Your task to perform on an android device: open a bookmark in the chrome app Image 0: 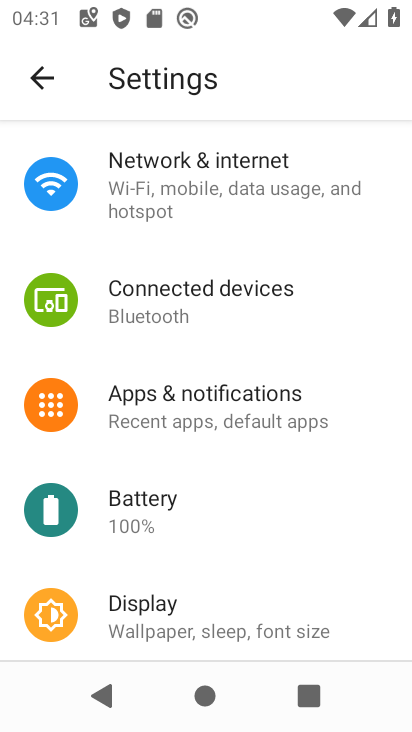
Step 0: press home button
Your task to perform on an android device: open a bookmark in the chrome app Image 1: 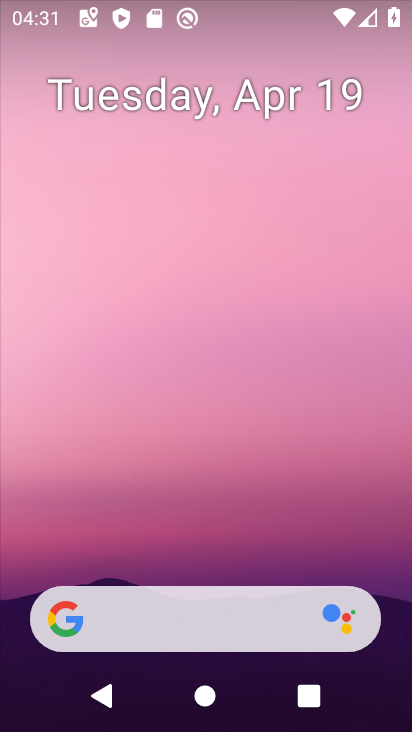
Step 1: drag from (210, 483) to (222, 156)
Your task to perform on an android device: open a bookmark in the chrome app Image 2: 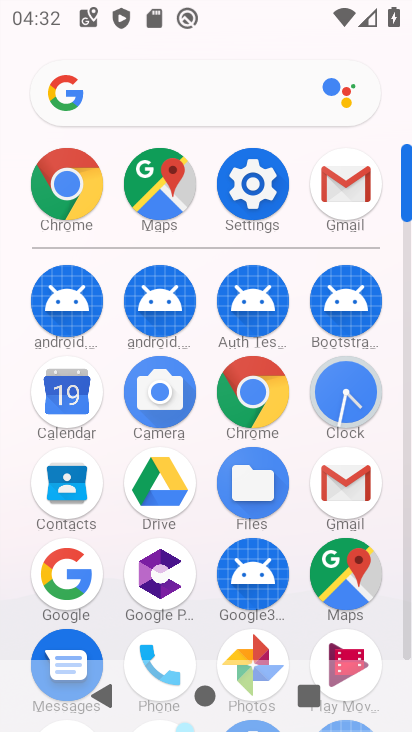
Step 2: click (242, 415)
Your task to perform on an android device: open a bookmark in the chrome app Image 3: 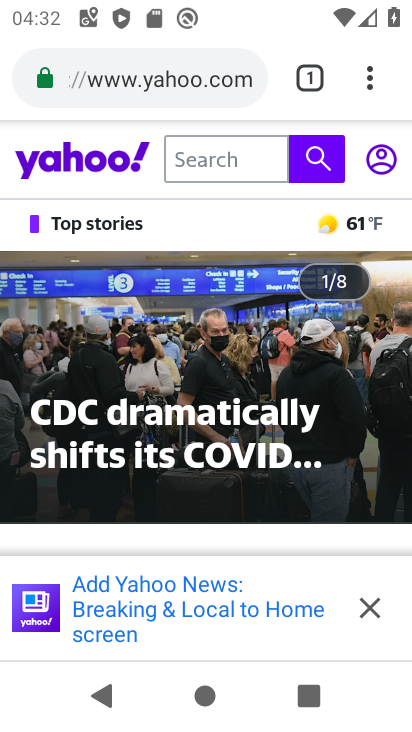
Step 3: click (367, 88)
Your task to perform on an android device: open a bookmark in the chrome app Image 4: 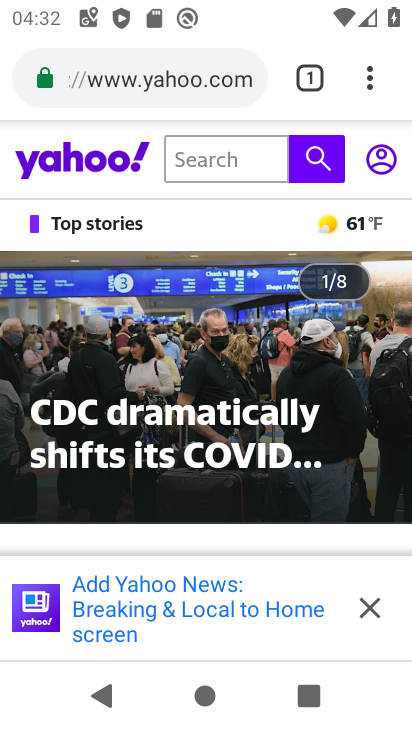
Step 4: click (372, 72)
Your task to perform on an android device: open a bookmark in the chrome app Image 5: 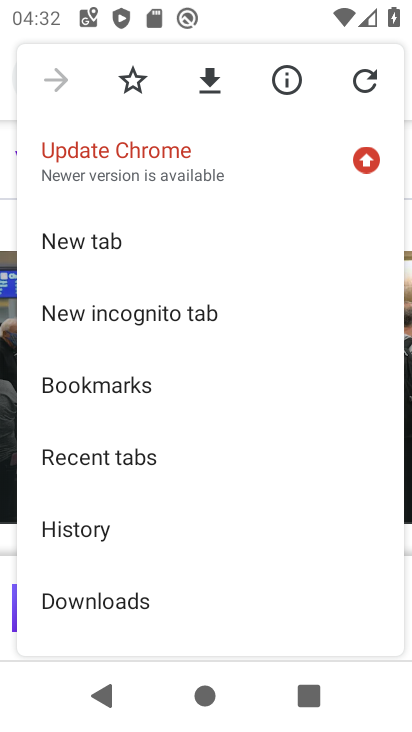
Step 5: click (138, 389)
Your task to perform on an android device: open a bookmark in the chrome app Image 6: 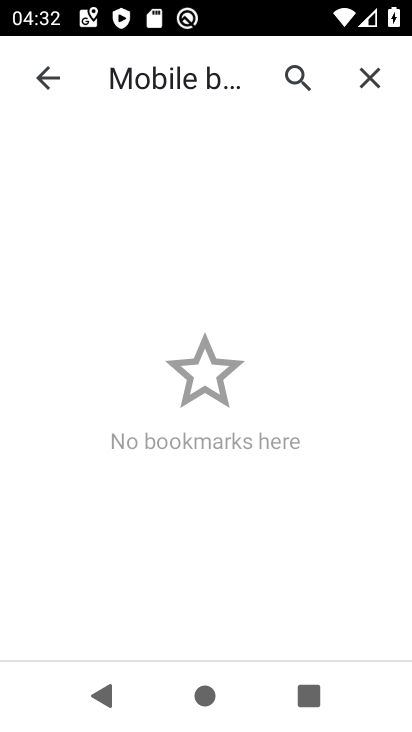
Step 6: task complete